Your task to perform on an android device: turn pop-ups on in chrome Image 0: 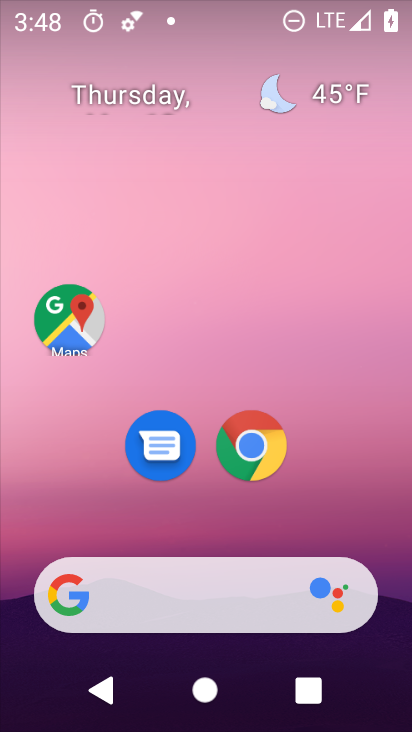
Step 0: click (259, 445)
Your task to perform on an android device: turn pop-ups on in chrome Image 1: 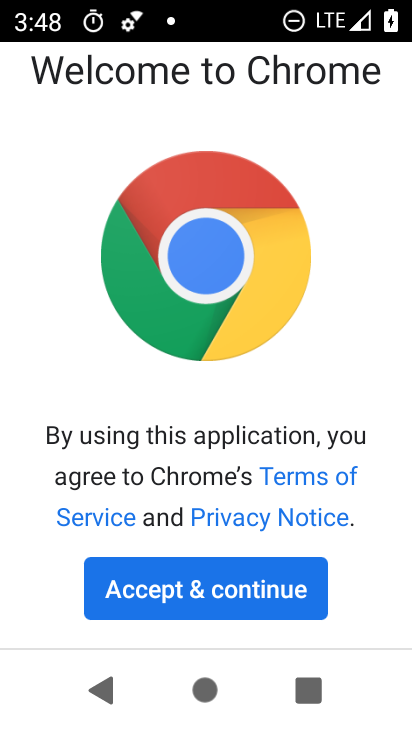
Step 1: click (258, 591)
Your task to perform on an android device: turn pop-ups on in chrome Image 2: 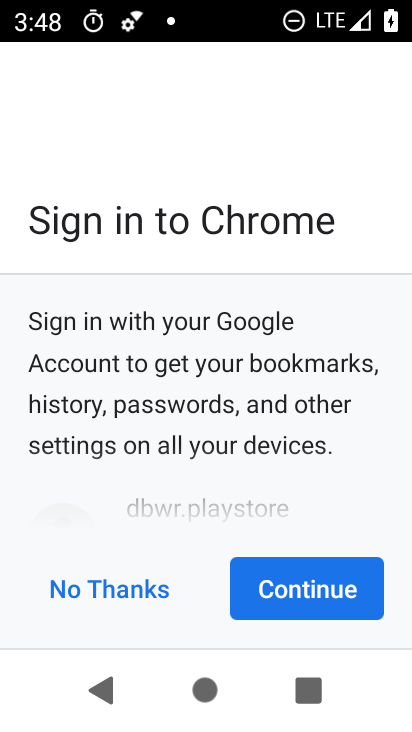
Step 2: click (285, 590)
Your task to perform on an android device: turn pop-ups on in chrome Image 3: 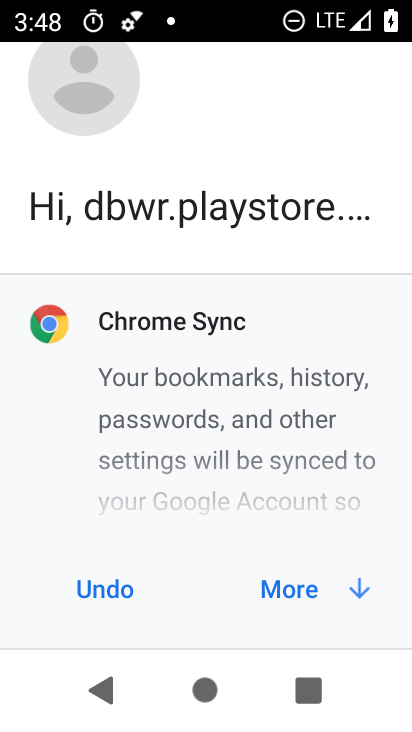
Step 3: click (285, 590)
Your task to perform on an android device: turn pop-ups on in chrome Image 4: 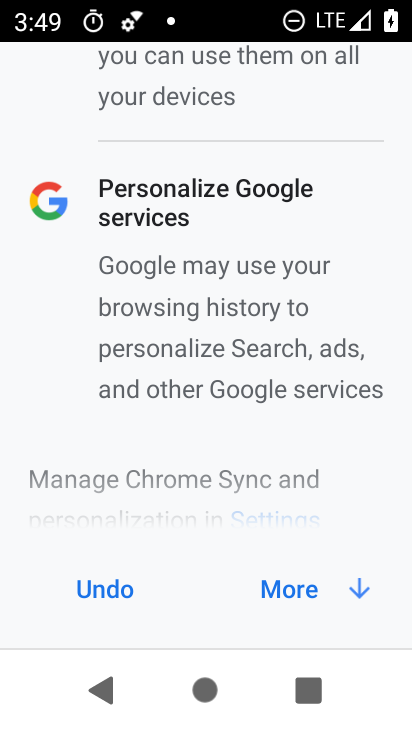
Step 4: click (285, 589)
Your task to perform on an android device: turn pop-ups on in chrome Image 5: 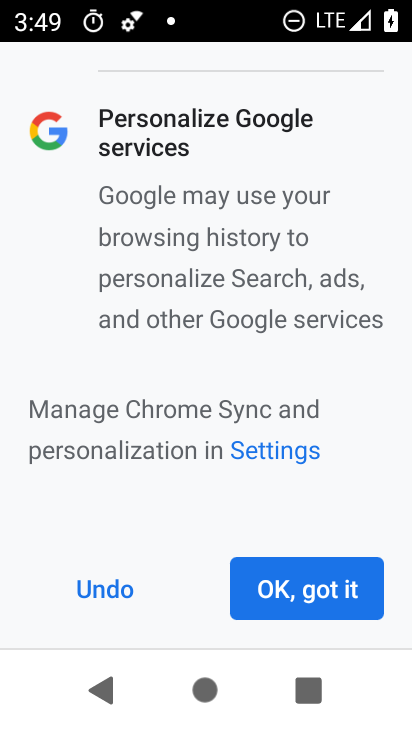
Step 5: click (291, 591)
Your task to perform on an android device: turn pop-ups on in chrome Image 6: 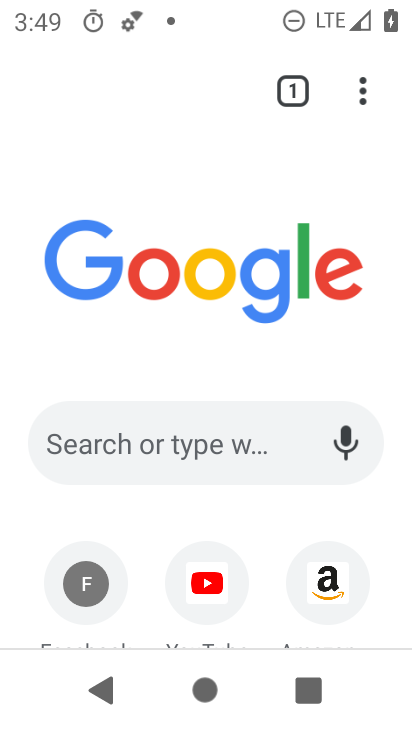
Step 6: click (363, 94)
Your task to perform on an android device: turn pop-ups on in chrome Image 7: 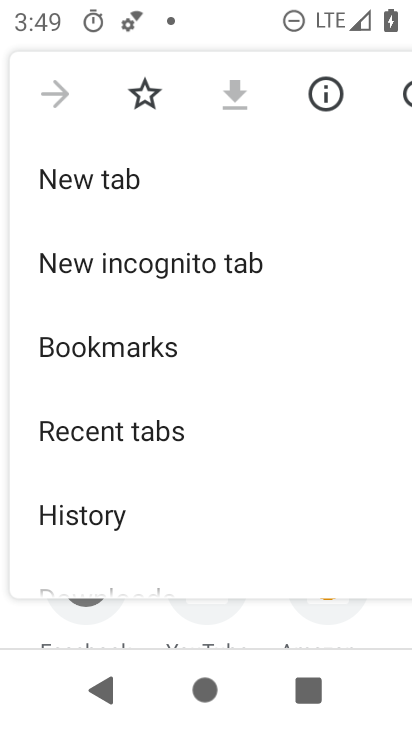
Step 7: drag from (152, 484) to (209, 273)
Your task to perform on an android device: turn pop-ups on in chrome Image 8: 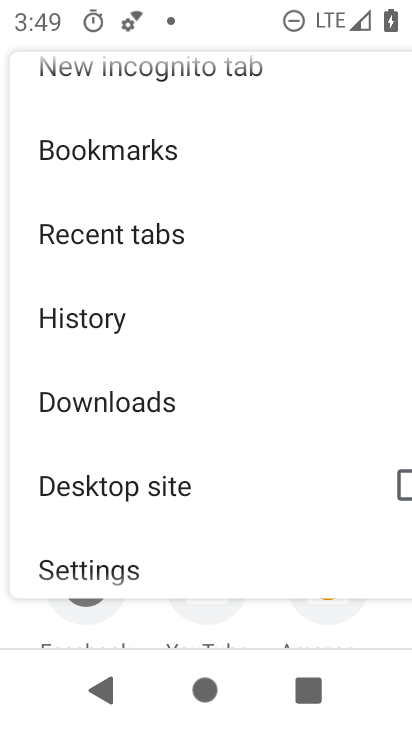
Step 8: drag from (177, 513) to (281, 386)
Your task to perform on an android device: turn pop-ups on in chrome Image 9: 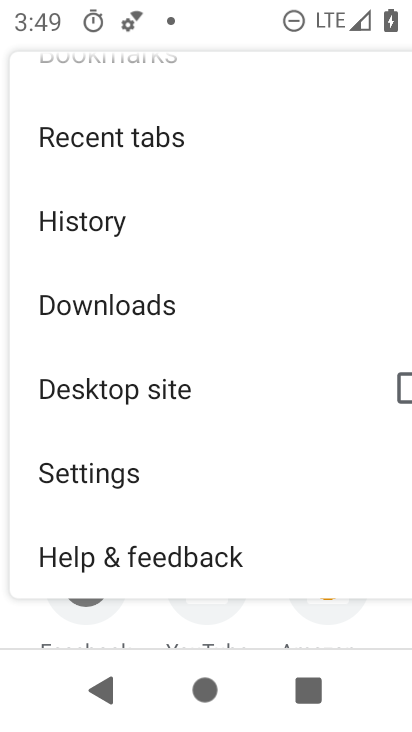
Step 9: click (97, 463)
Your task to perform on an android device: turn pop-ups on in chrome Image 10: 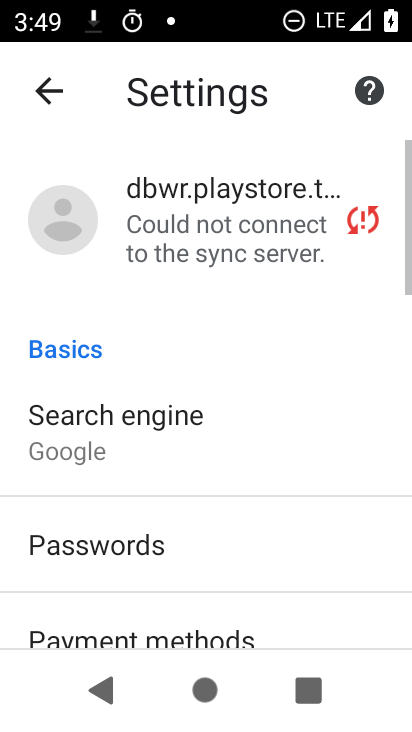
Step 10: drag from (179, 561) to (259, 400)
Your task to perform on an android device: turn pop-ups on in chrome Image 11: 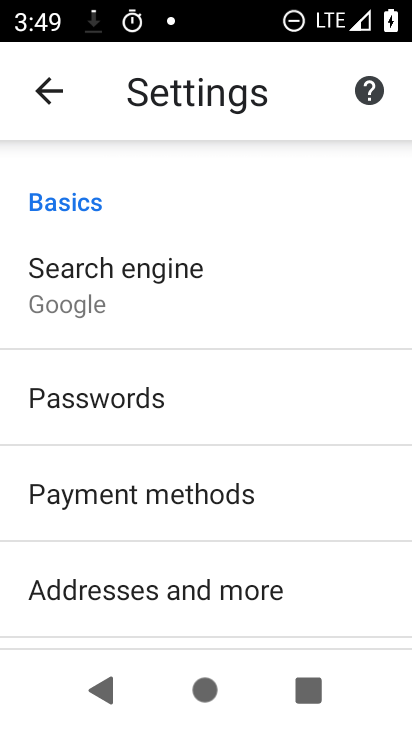
Step 11: drag from (181, 587) to (239, 459)
Your task to perform on an android device: turn pop-ups on in chrome Image 12: 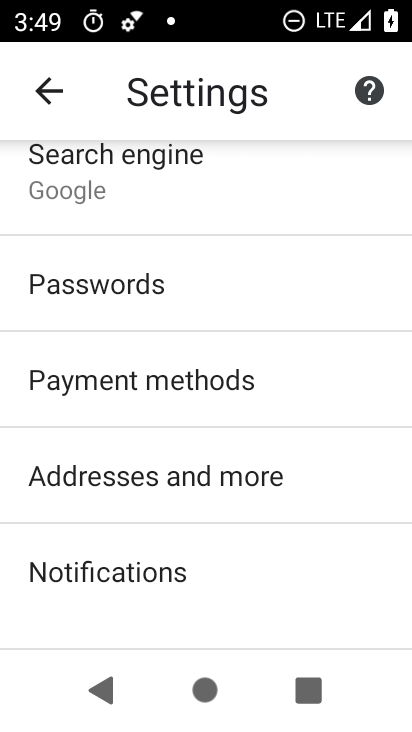
Step 12: drag from (222, 587) to (246, 462)
Your task to perform on an android device: turn pop-ups on in chrome Image 13: 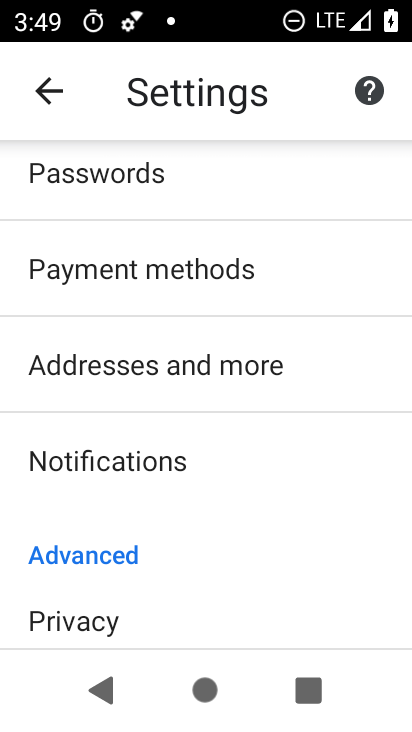
Step 13: drag from (170, 584) to (229, 461)
Your task to perform on an android device: turn pop-ups on in chrome Image 14: 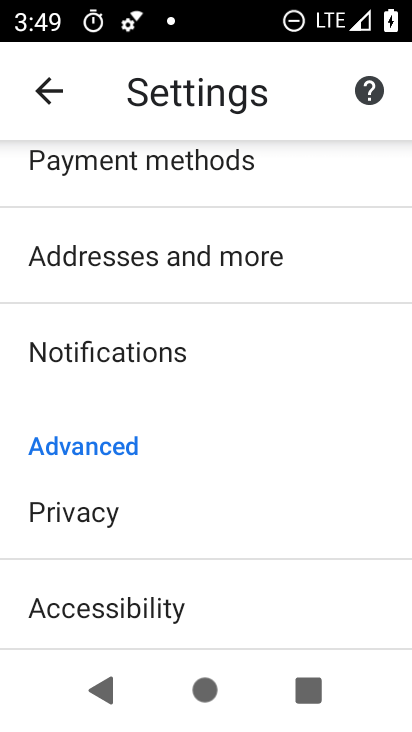
Step 14: drag from (162, 533) to (224, 457)
Your task to perform on an android device: turn pop-ups on in chrome Image 15: 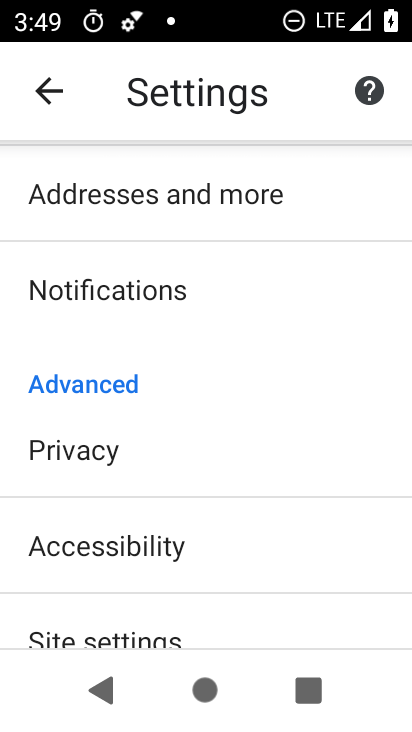
Step 15: drag from (213, 534) to (283, 445)
Your task to perform on an android device: turn pop-ups on in chrome Image 16: 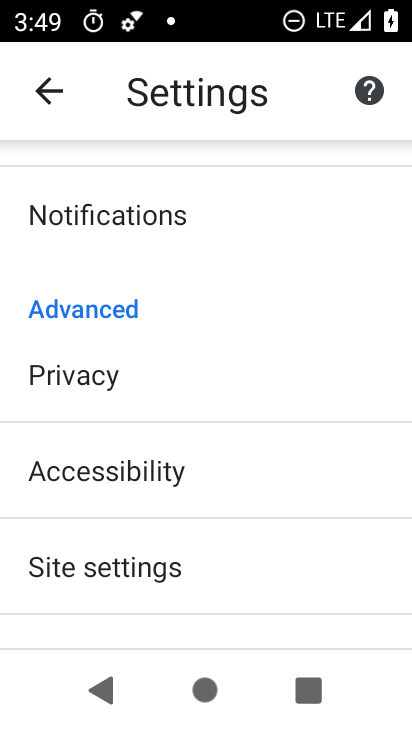
Step 16: click (133, 558)
Your task to perform on an android device: turn pop-ups on in chrome Image 17: 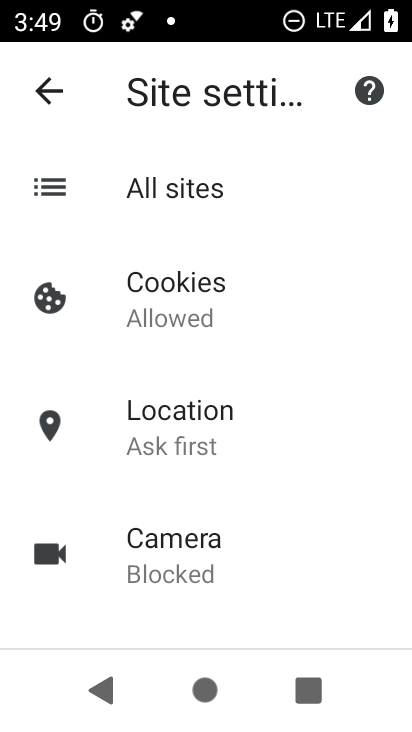
Step 17: drag from (188, 505) to (256, 404)
Your task to perform on an android device: turn pop-ups on in chrome Image 18: 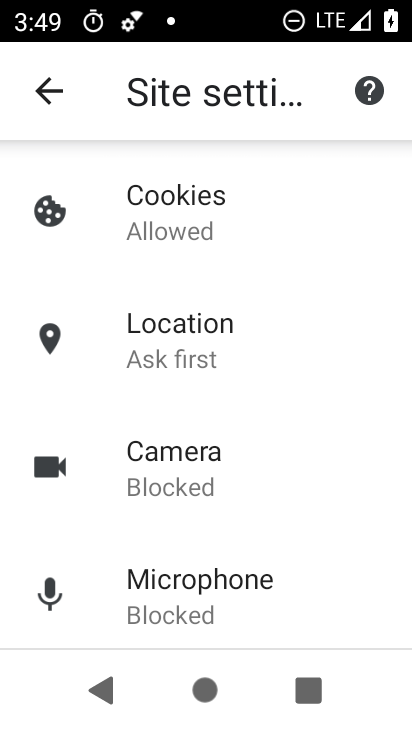
Step 18: drag from (198, 547) to (249, 425)
Your task to perform on an android device: turn pop-ups on in chrome Image 19: 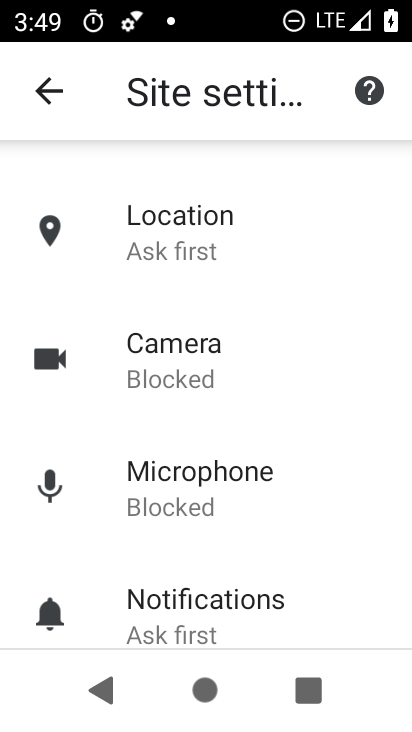
Step 19: drag from (210, 565) to (270, 430)
Your task to perform on an android device: turn pop-ups on in chrome Image 20: 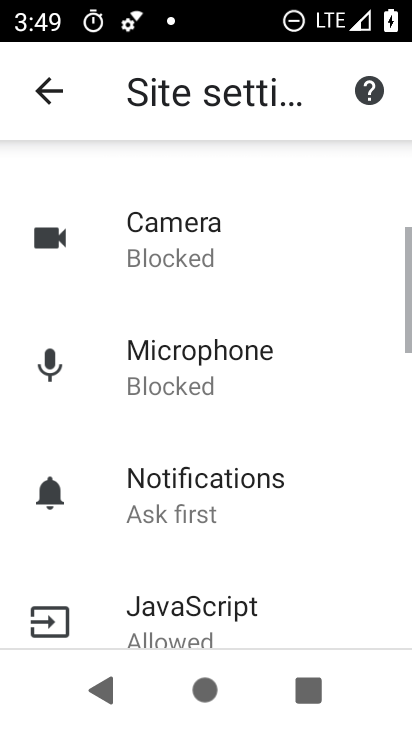
Step 20: drag from (207, 563) to (258, 434)
Your task to perform on an android device: turn pop-ups on in chrome Image 21: 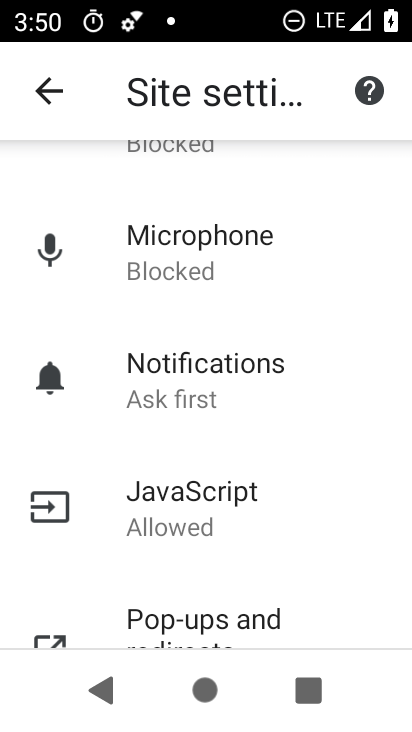
Step 21: drag from (196, 597) to (249, 498)
Your task to perform on an android device: turn pop-ups on in chrome Image 22: 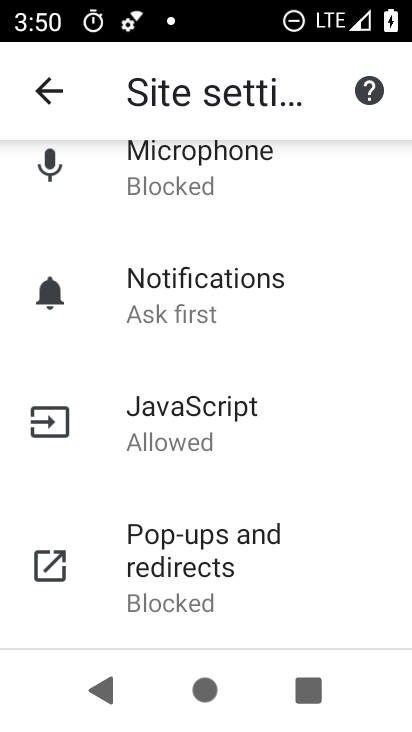
Step 22: click (195, 556)
Your task to perform on an android device: turn pop-ups on in chrome Image 23: 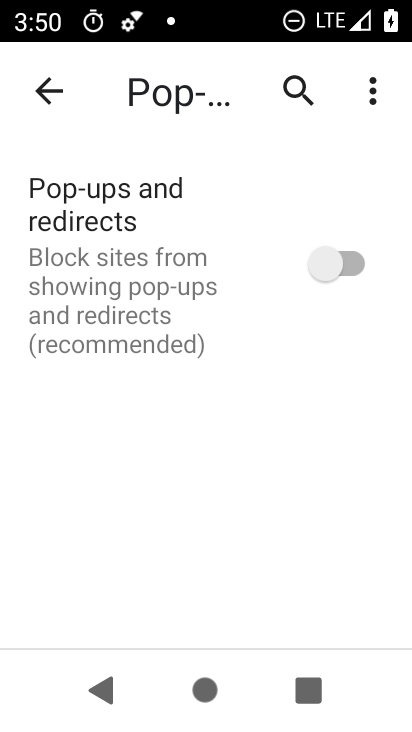
Step 23: click (333, 253)
Your task to perform on an android device: turn pop-ups on in chrome Image 24: 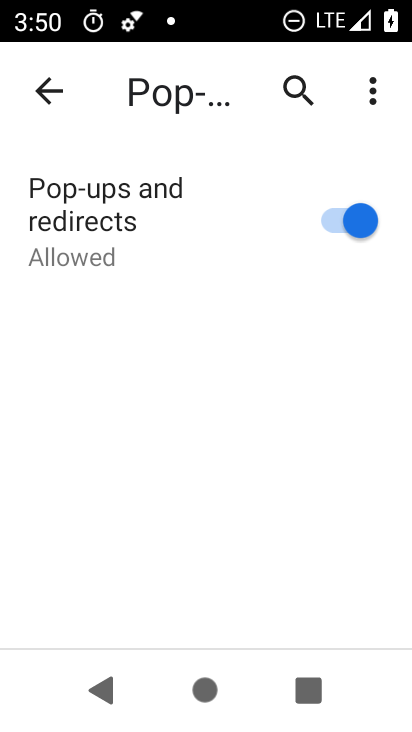
Step 24: task complete